Your task to perform on an android device: Open notification settings Image 0: 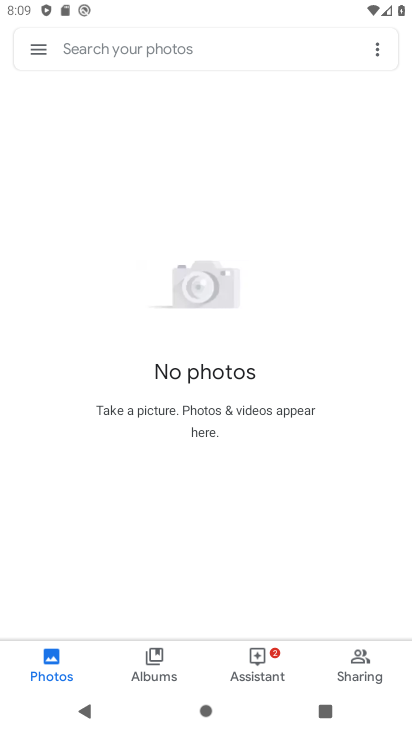
Step 0: press home button
Your task to perform on an android device: Open notification settings Image 1: 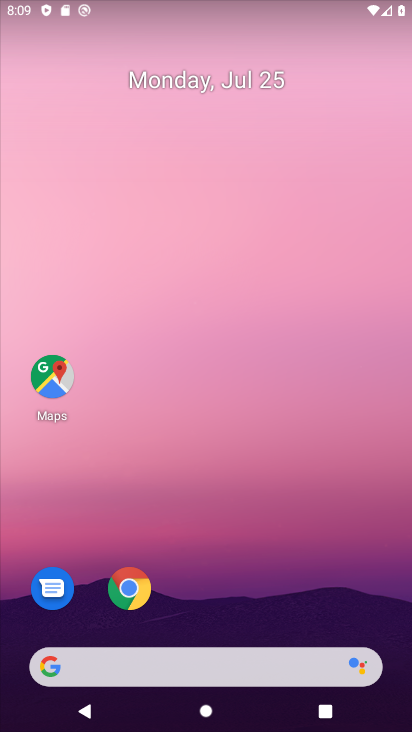
Step 1: drag from (226, 682) to (219, 305)
Your task to perform on an android device: Open notification settings Image 2: 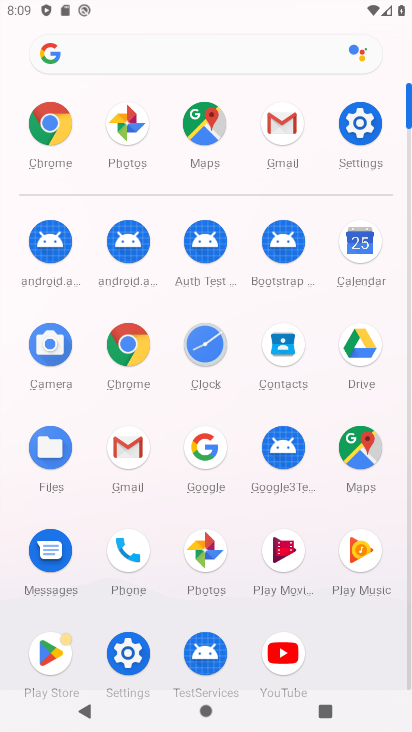
Step 2: click (362, 143)
Your task to perform on an android device: Open notification settings Image 3: 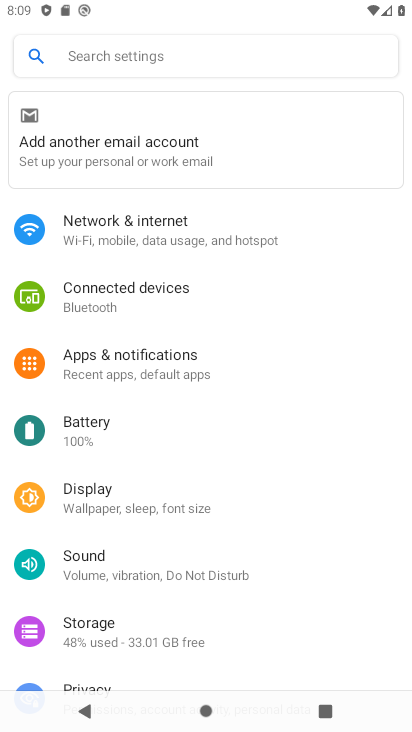
Step 3: click (132, 364)
Your task to perform on an android device: Open notification settings Image 4: 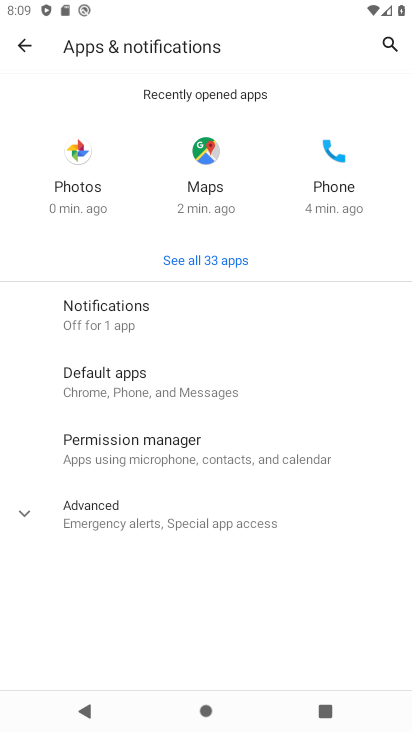
Step 4: click (95, 519)
Your task to perform on an android device: Open notification settings Image 5: 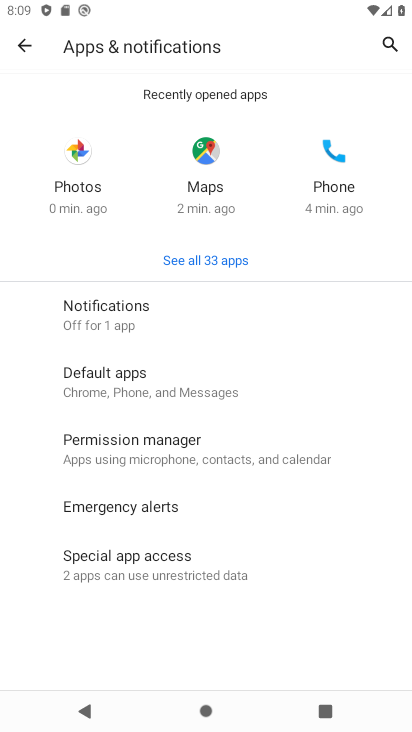
Step 5: task complete